Your task to perform on an android device: View the shopping cart on ebay. Search for apple airpods pro on ebay, select the first entry, and add it to the cart. Image 0: 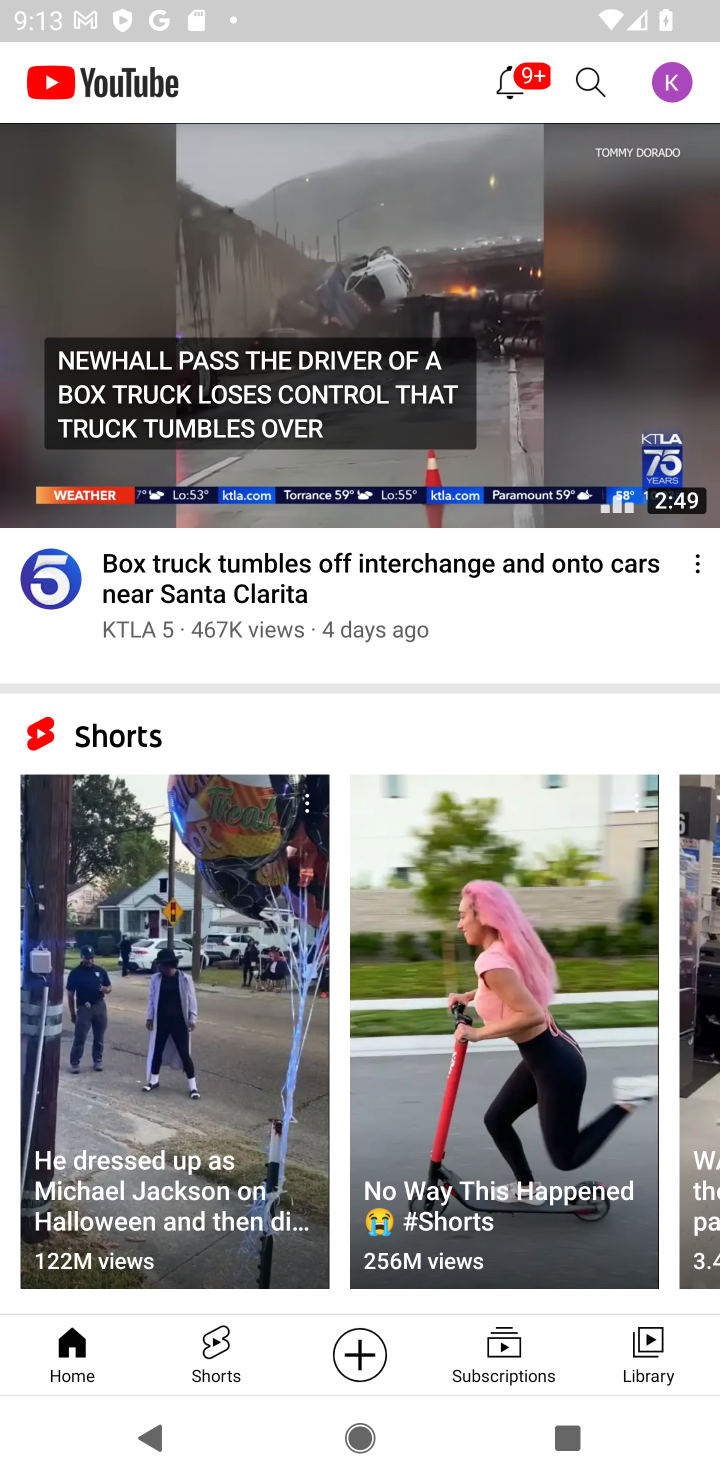
Step 0: press home button
Your task to perform on an android device: View the shopping cart on ebay. Search for apple airpods pro on ebay, select the first entry, and add it to the cart. Image 1: 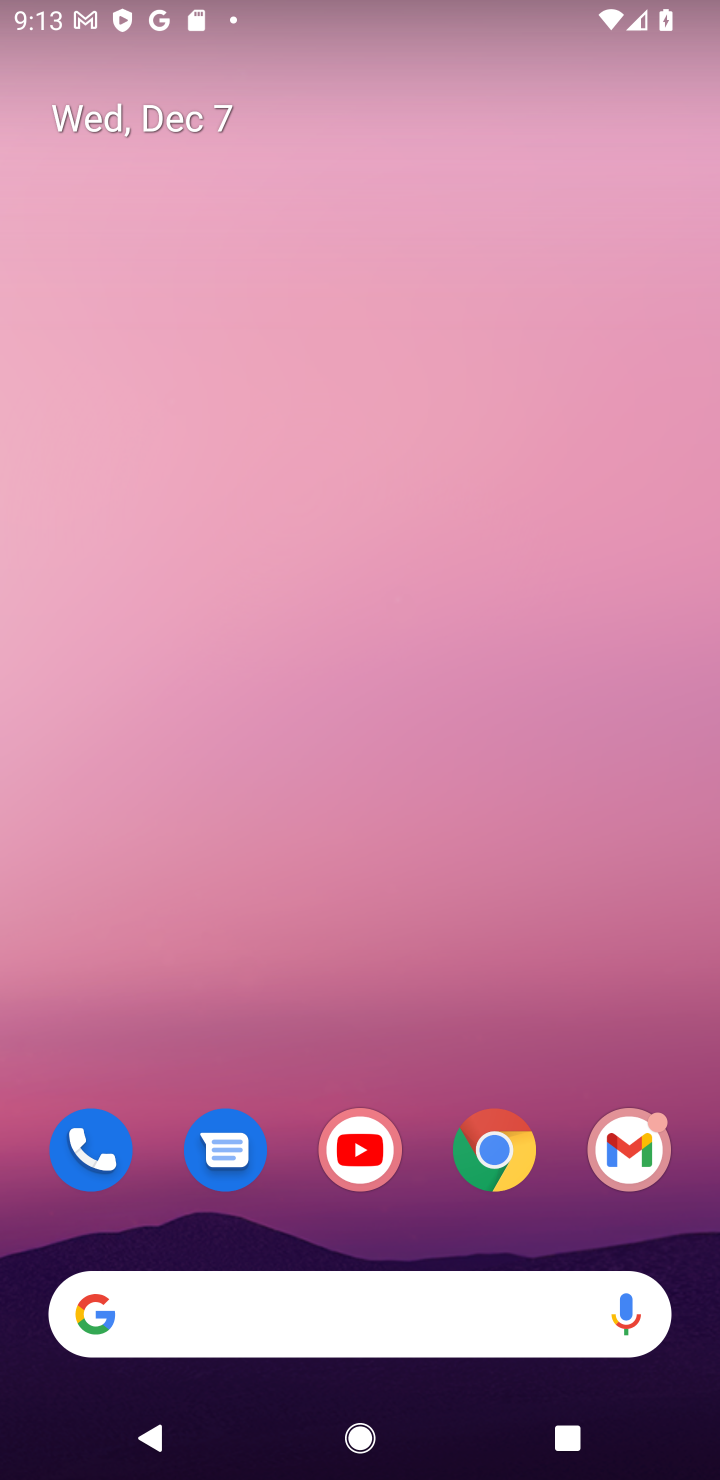
Step 1: click (499, 1159)
Your task to perform on an android device: View the shopping cart on ebay. Search for apple airpods pro on ebay, select the first entry, and add it to the cart. Image 2: 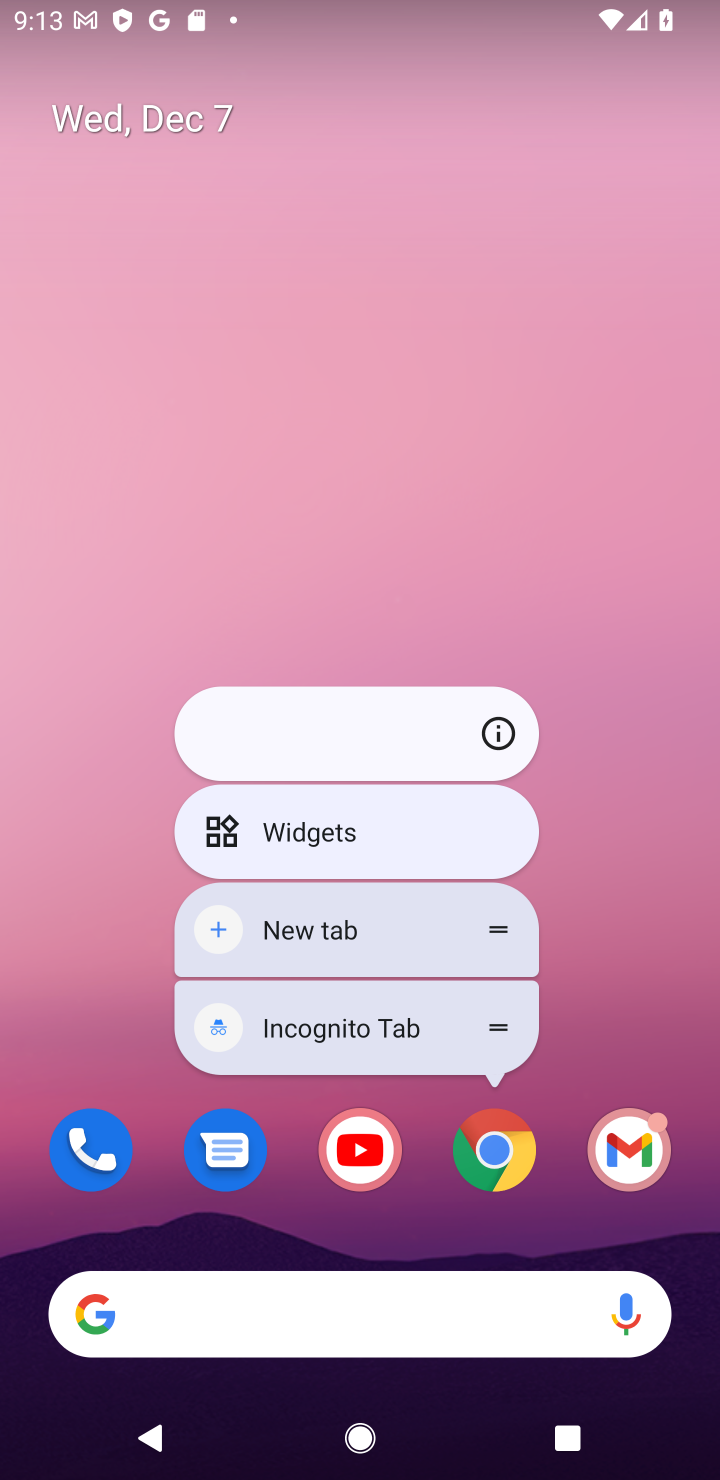
Step 2: click (499, 1159)
Your task to perform on an android device: View the shopping cart on ebay. Search for apple airpods pro on ebay, select the first entry, and add it to the cart. Image 3: 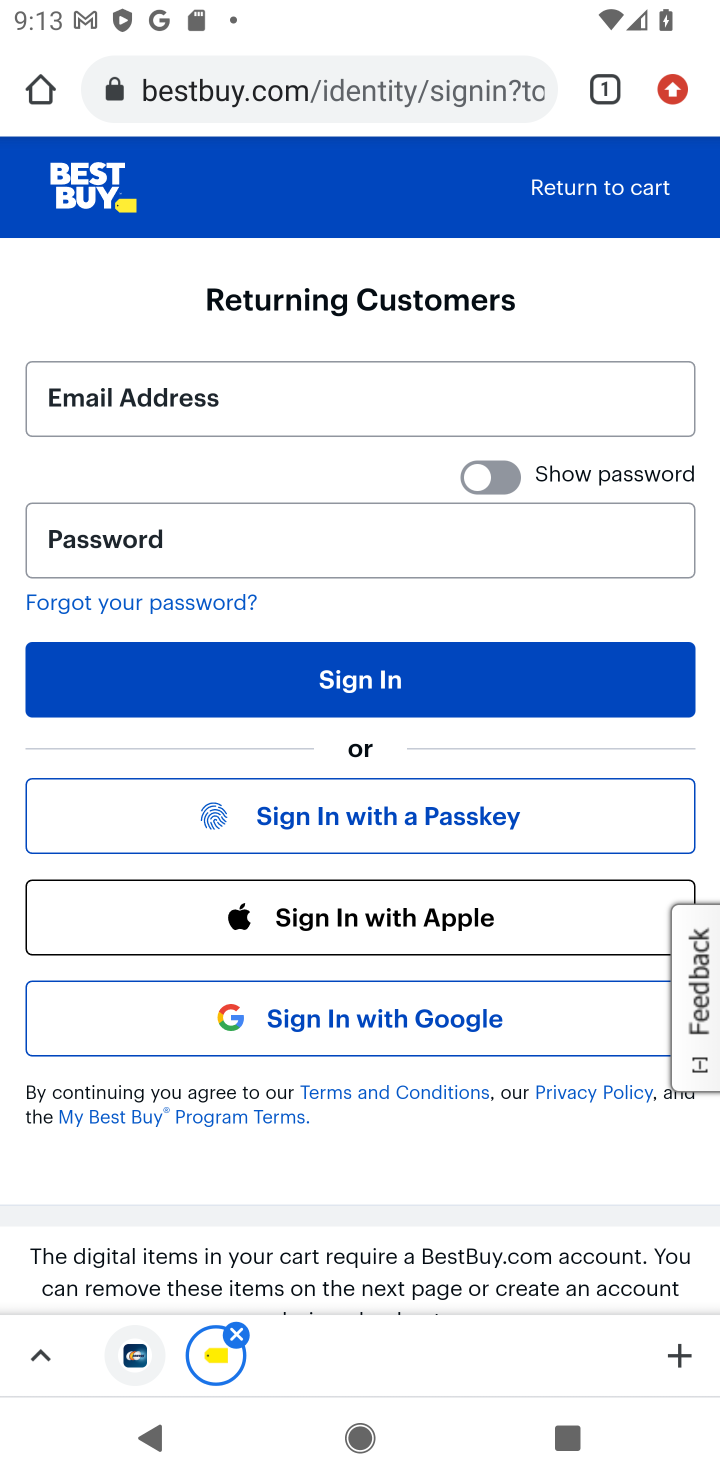
Step 3: click (426, 104)
Your task to perform on an android device: View the shopping cart on ebay. Search for apple airpods pro on ebay, select the first entry, and add it to the cart. Image 4: 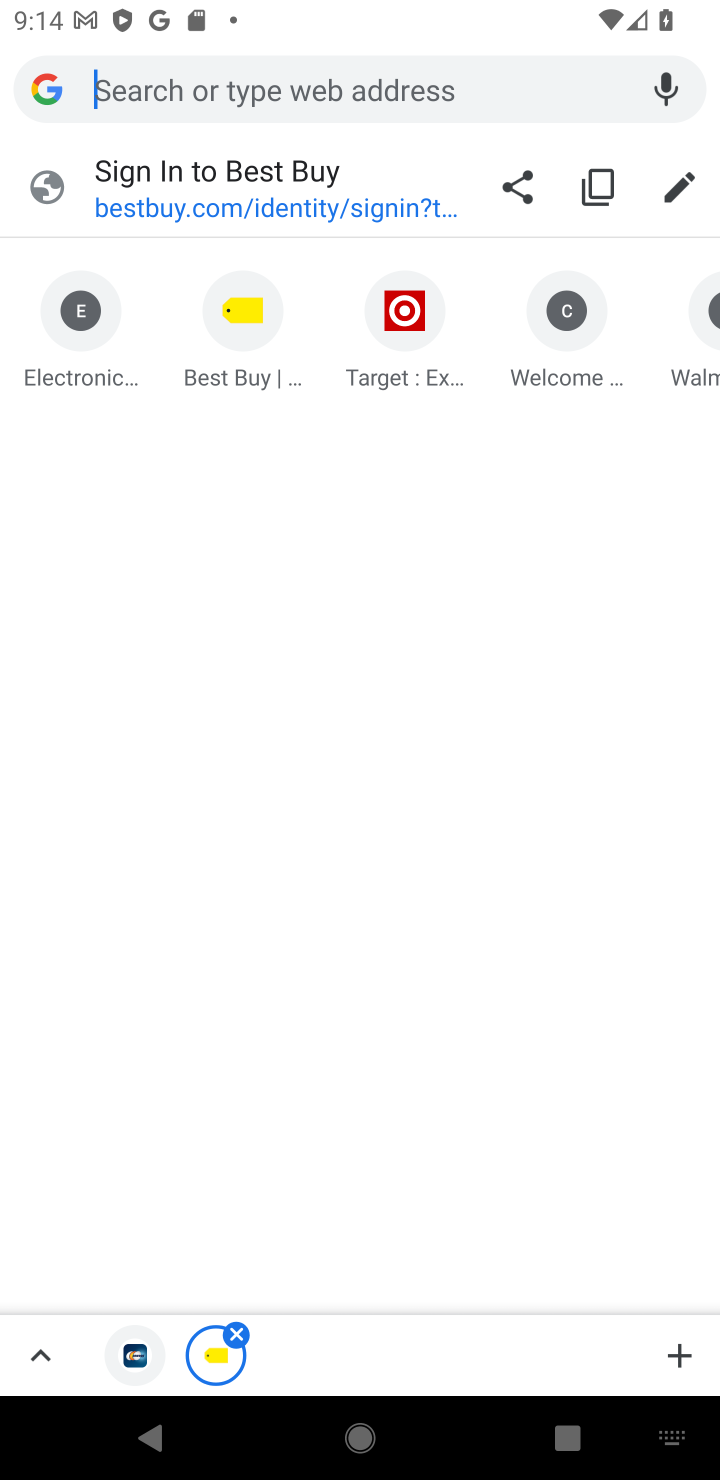
Step 4: type "ebay"
Your task to perform on an android device: View the shopping cart on ebay. Search for apple airpods pro on ebay, select the first entry, and add it to the cart. Image 5: 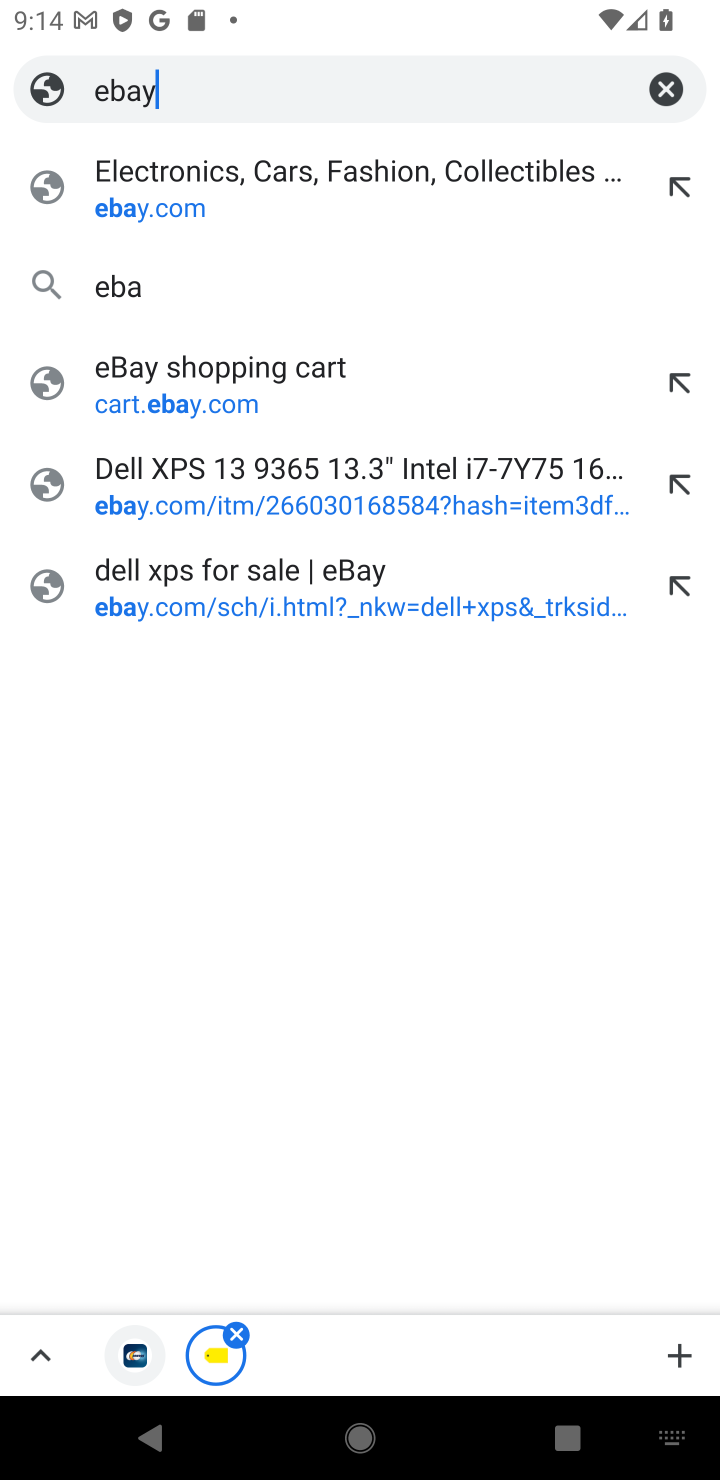
Step 5: press enter
Your task to perform on an android device: View the shopping cart on ebay. Search for apple airpods pro on ebay, select the first entry, and add it to the cart. Image 6: 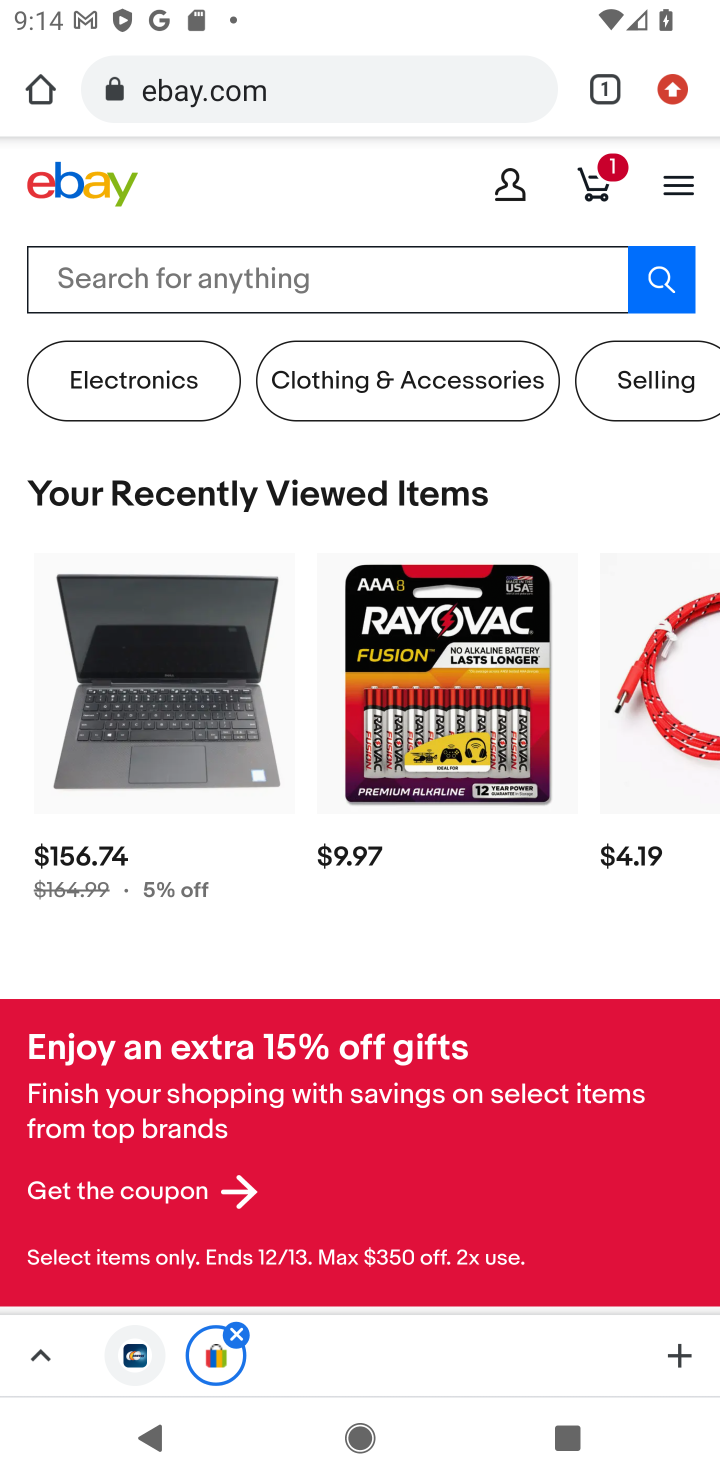
Step 6: click (603, 195)
Your task to perform on an android device: View the shopping cart on ebay. Search for apple airpods pro on ebay, select the first entry, and add it to the cart. Image 7: 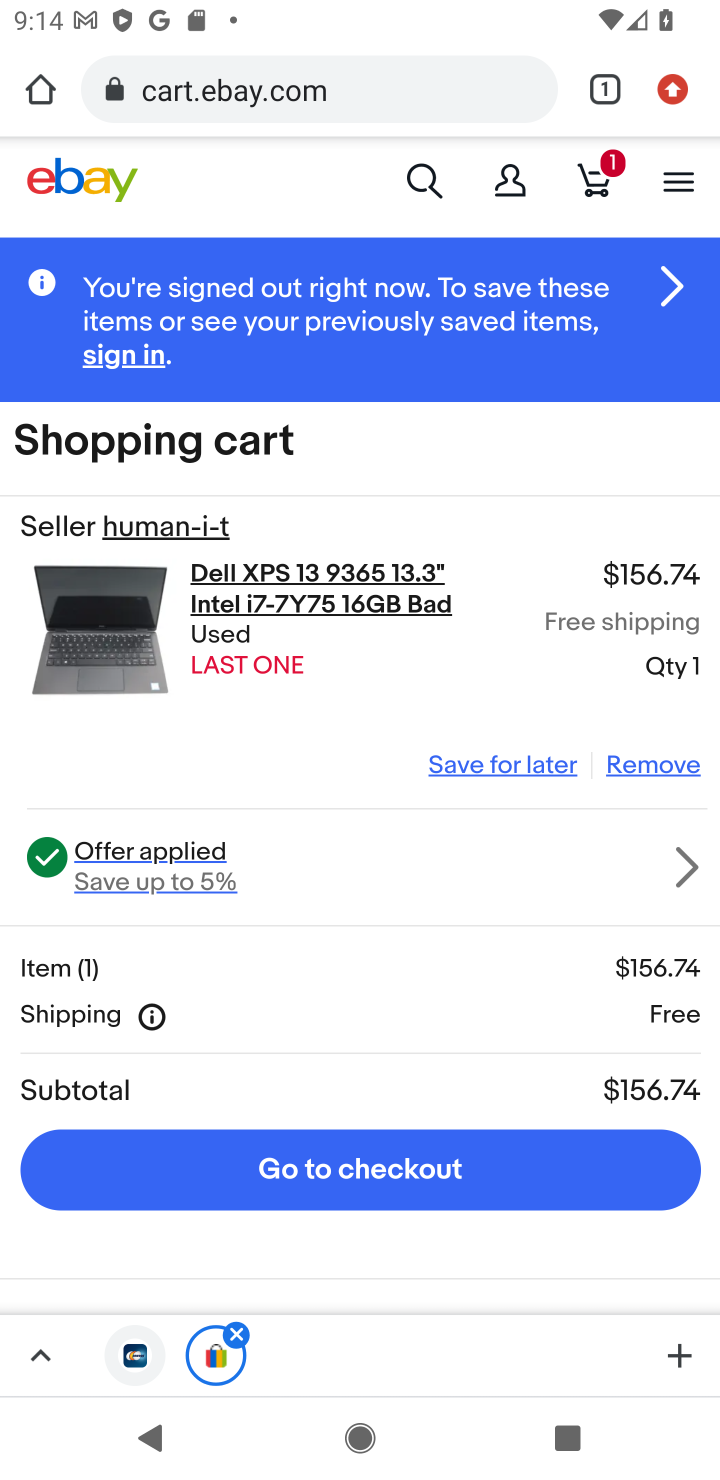
Step 7: click (426, 174)
Your task to perform on an android device: View the shopping cart on ebay. Search for apple airpods pro on ebay, select the first entry, and add it to the cart. Image 8: 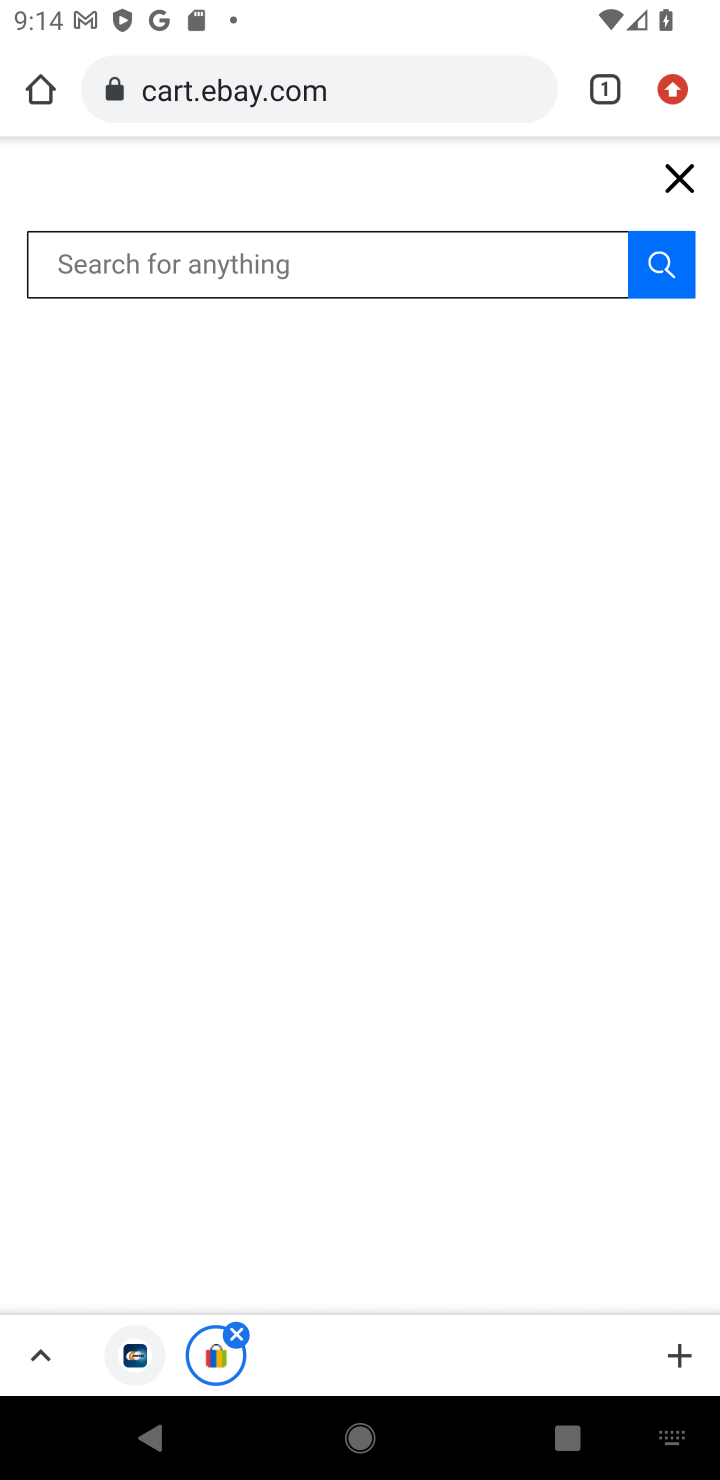
Step 8: type "apple airpods pro"
Your task to perform on an android device: View the shopping cart on ebay. Search for apple airpods pro on ebay, select the first entry, and add it to the cart. Image 9: 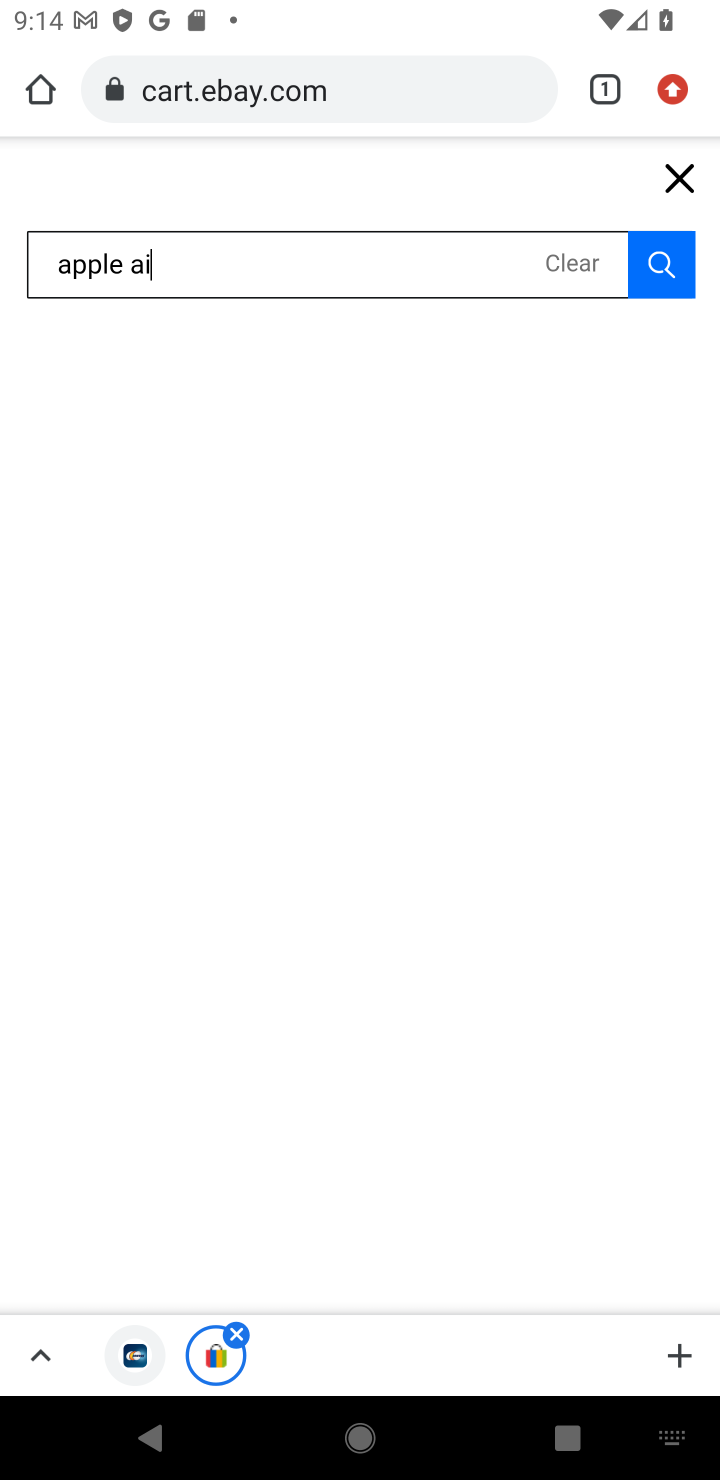
Step 9: press enter
Your task to perform on an android device: View the shopping cart on ebay. Search for apple airpods pro on ebay, select the first entry, and add it to the cart. Image 10: 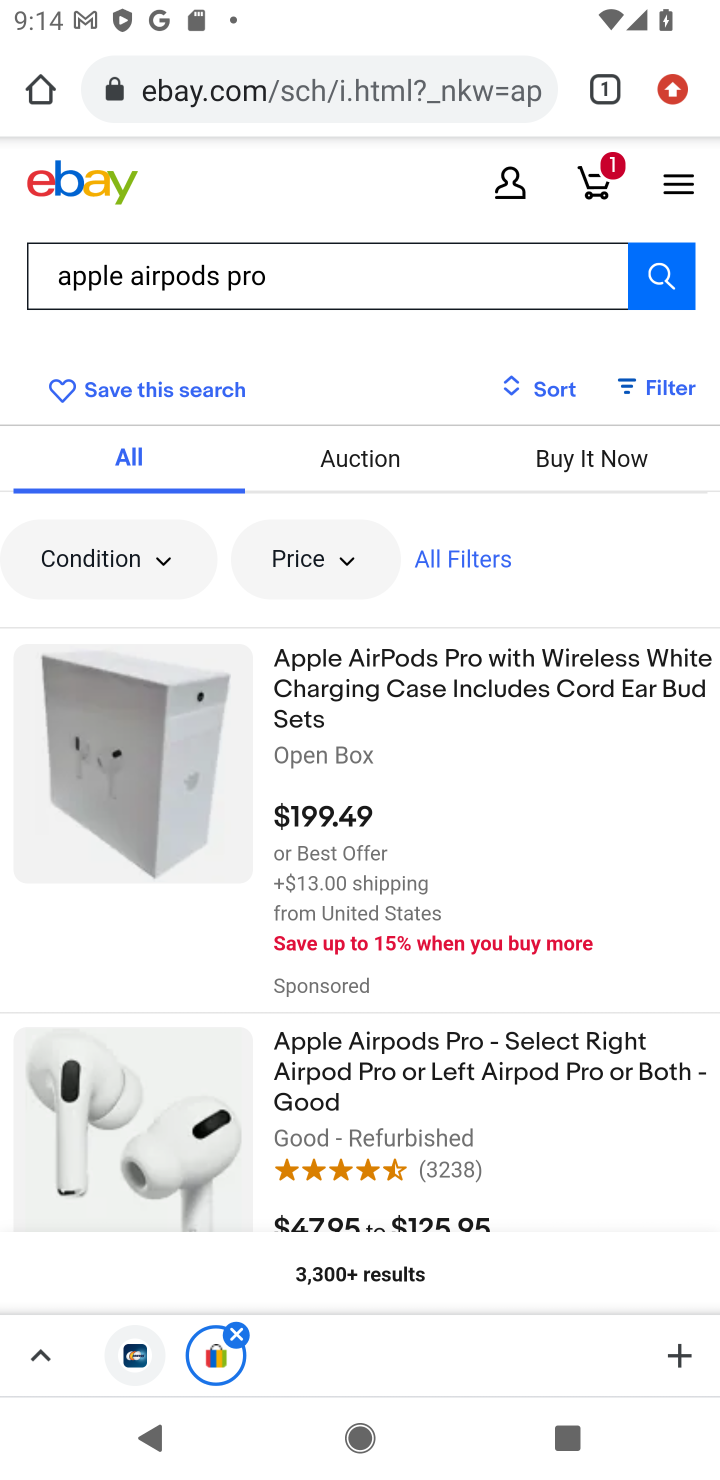
Step 10: click (120, 733)
Your task to perform on an android device: View the shopping cart on ebay. Search for apple airpods pro on ebay, select the first entry, and add it to the cart. Image 11: 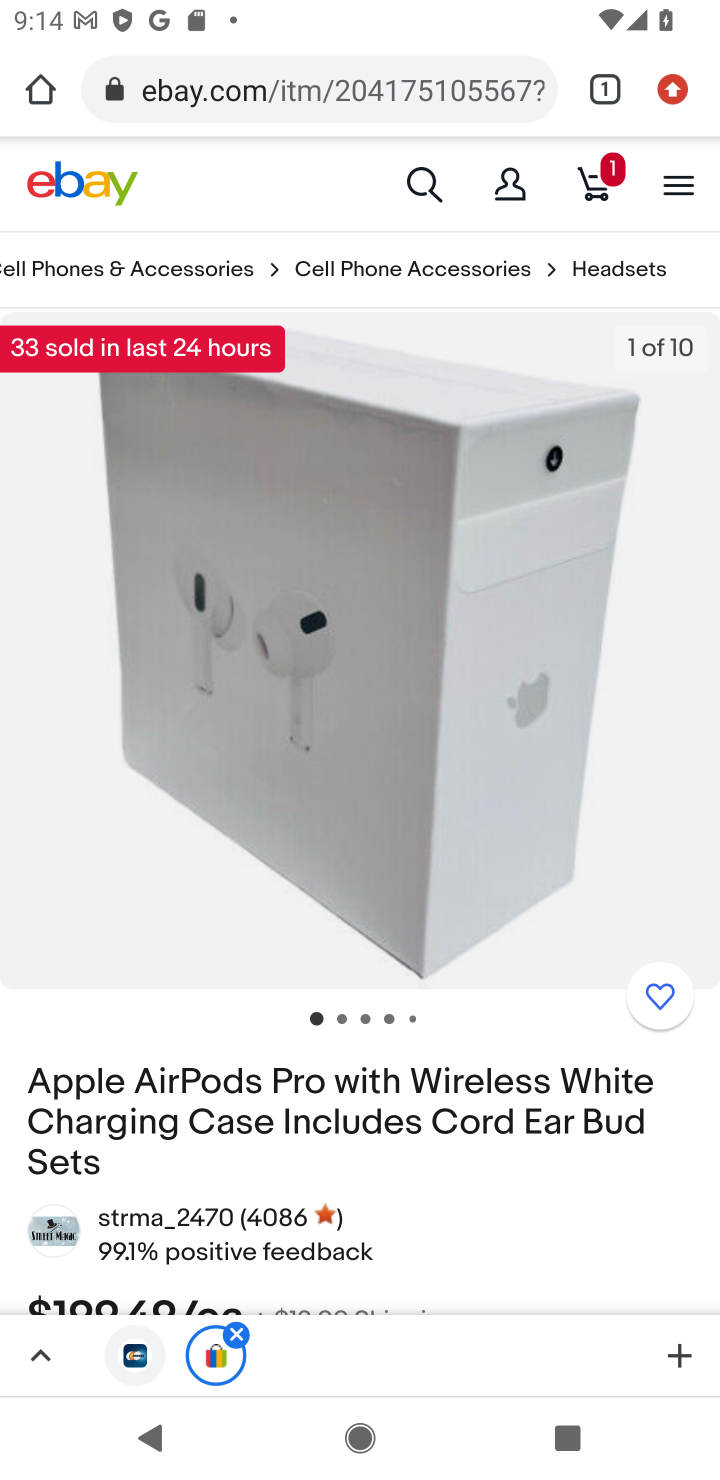
Step 11: drag from (555, 1097) to (558, 480)
Your task to perform on an android device: View the shopping cart on ebay. Search for apple airpods pro on ebay, select the first entry, and add it to the cart. Image 12: 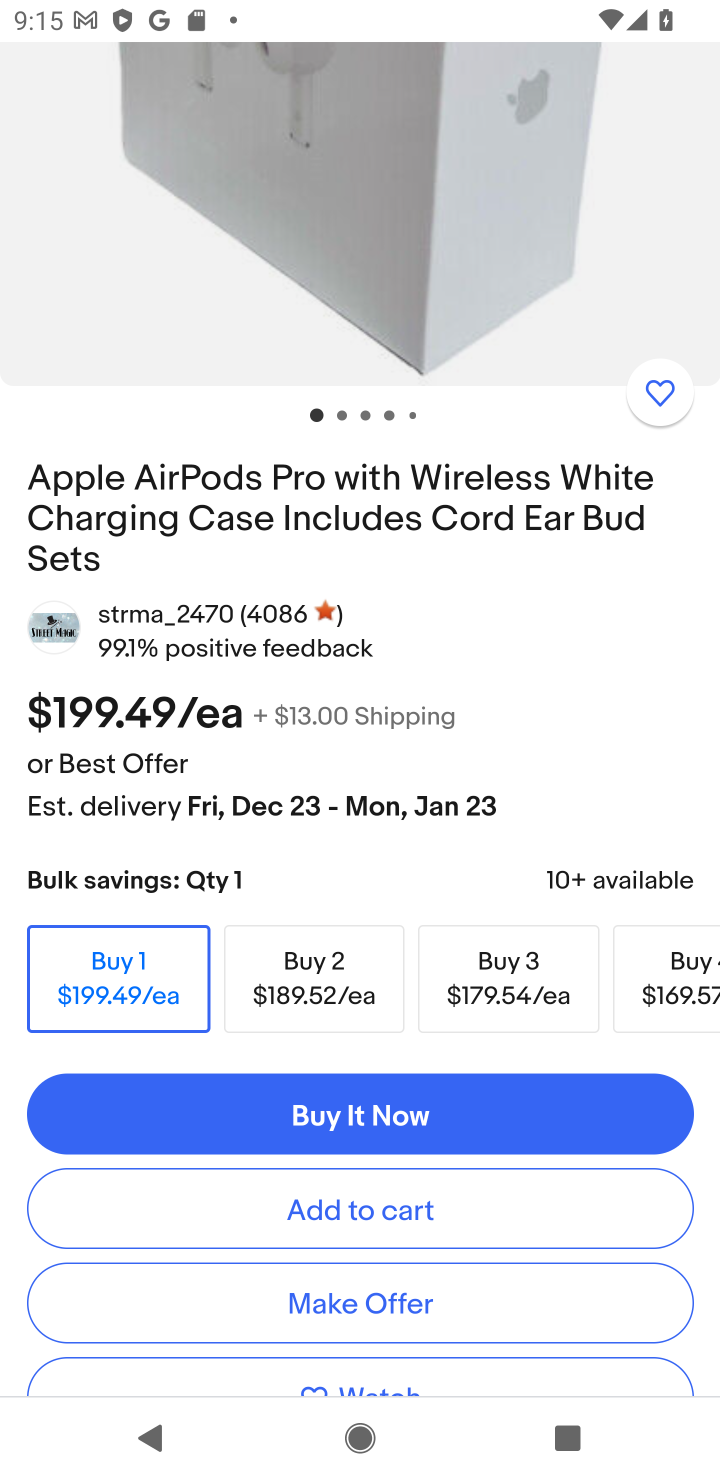
Step 12: click (435, 1208)
Your task to perform on an android device: View the shopping cart on ebay. Search for apple airpods pro on ebay, select the first entry, and add it to the cart. Image 13: 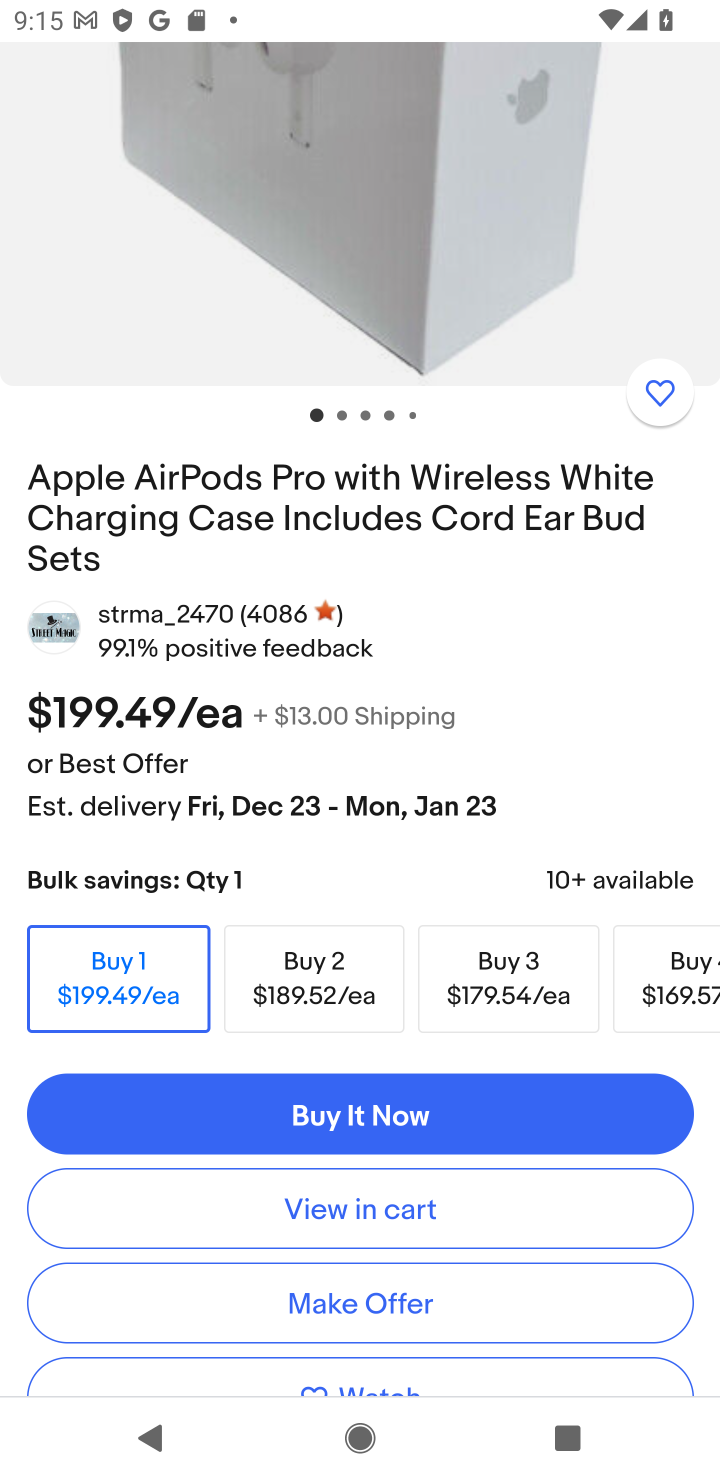
Step 13: task complete